Your task to perform on an android device: change alarm snooze length Image 0: 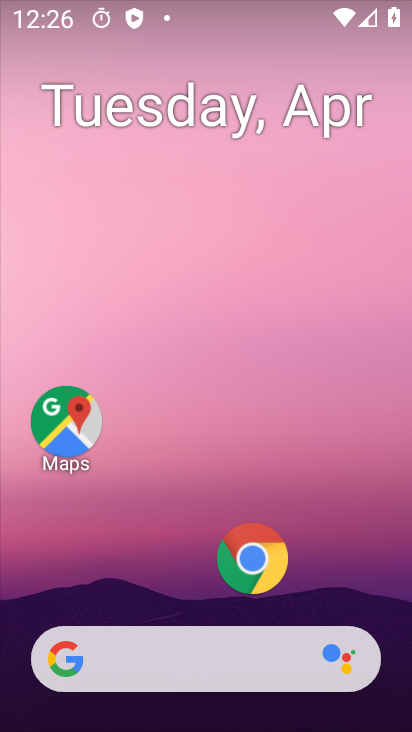
Step 0: drag from (143, 610) to (166, 212)
Your task to perform on an android device: change alarm snooze length Image 1: 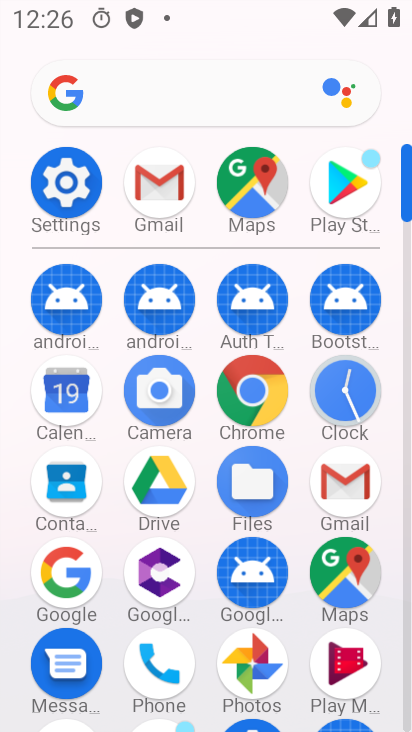
Step 1: click (343, 399)
Your task to perform on an android device: change alarm snooze length Image 2: 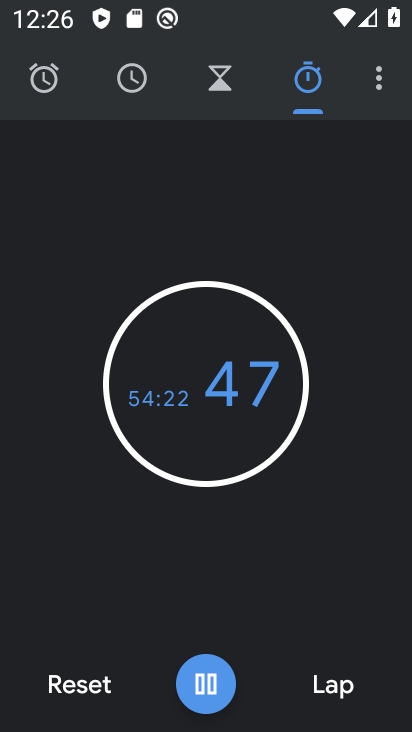
Step 2: click (380, 87)
Your task to perform on an android device: change alarm snooze length Image 3: 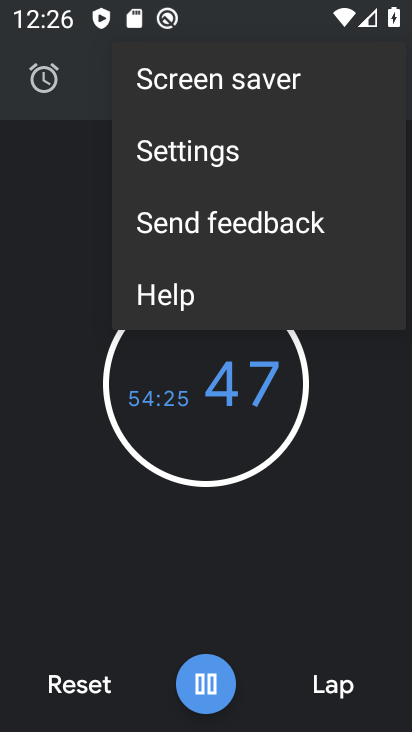
Step 3: click (296, 146)
Your task to perform on an android device: change alarm snooze length Image 4: 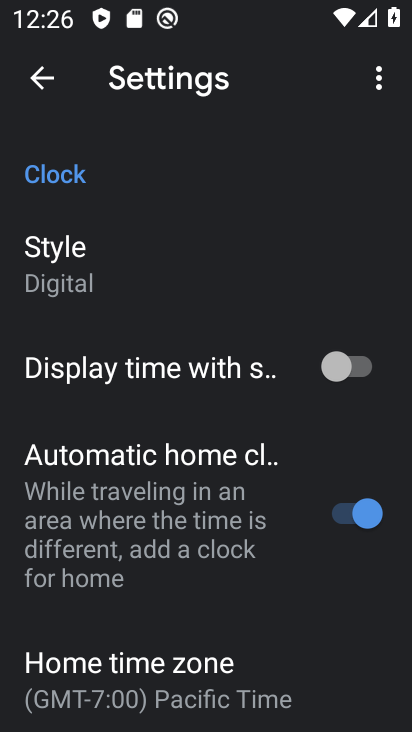
Step 4: drag from (167, 577) to (197, 174)
Your task to perform on an android device: change alarm snooze length Image 5: 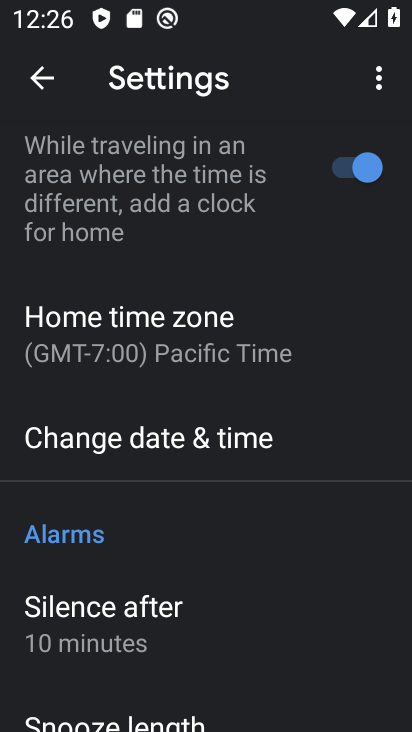
Step 5: drag from (128, 639) to (149, 409)
Your task to perform on an android device: change alarm snooze length Image 6: 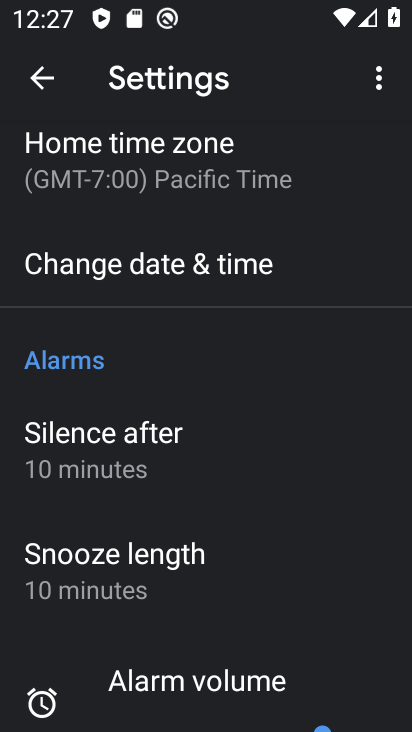
Step 6: click (116, 562)
Your task to perform on an android device: change alarm snooze length Image 7: 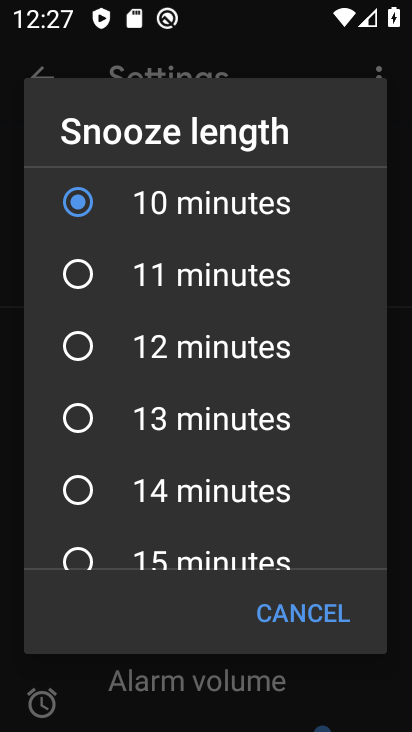
Step 7: click (68, 265)
Your task to perform on an android device: change alarm snooze length Image 8: 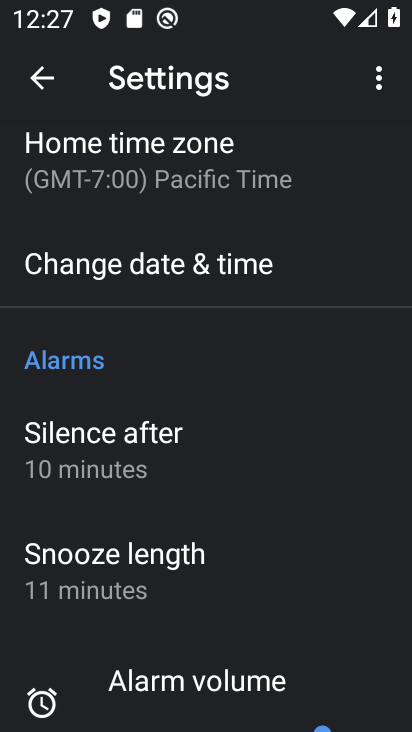
Step 8: task complete